Your task to perform on an android device: turn off location history Image 0: 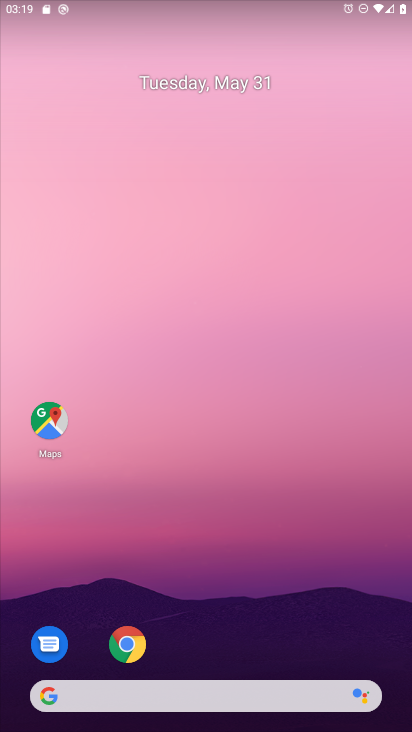
Step 0: drag from (260, 573) to (246, 183)
Your task to perform on an android device: turn off location history Image 1: 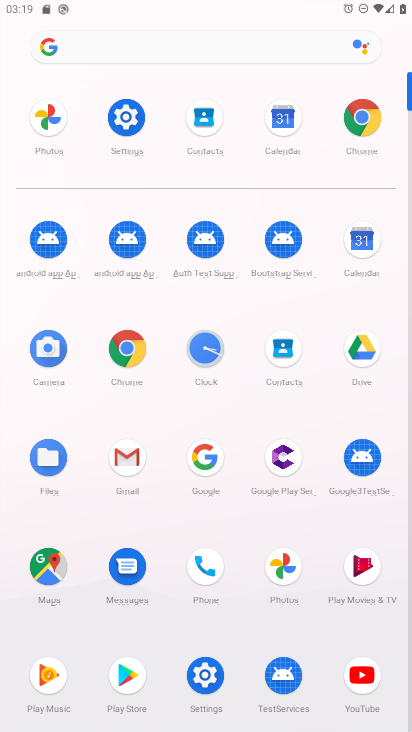
Step 1: click (134, 123)
Your task to perform on an android device: turn off location history Image 2: 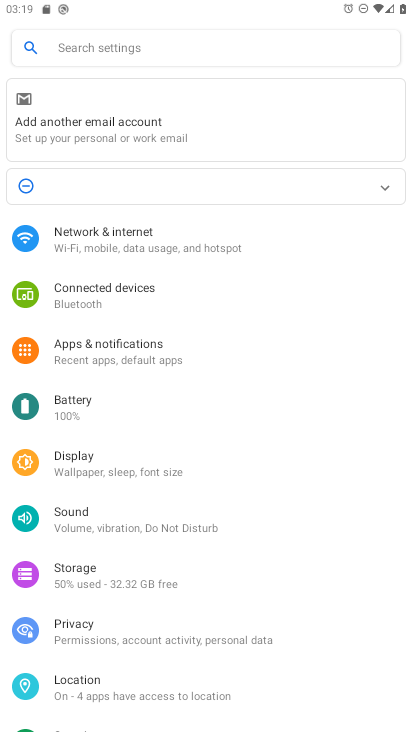
Step 2: drag from (219, 541) to (263, 212)
Your task to perform on an android device: turn off location history Image 3: 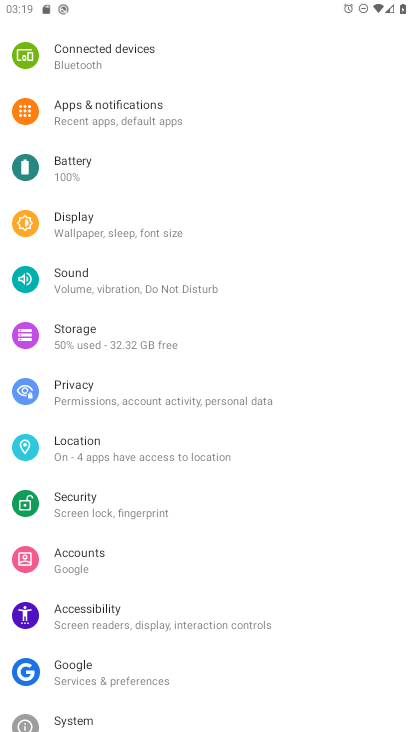
Step 3: click (101, 445)
Your task to perform on an android device: turn off location history Image 4: 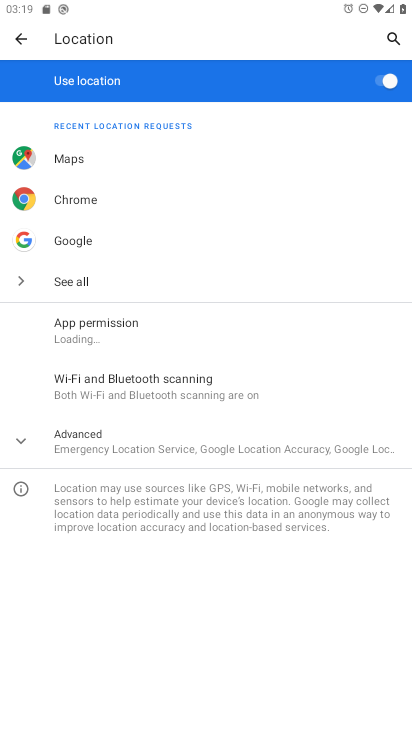
Step 4: click (134, 458)
Your task to perform on an android device: turn off location history Image 5: 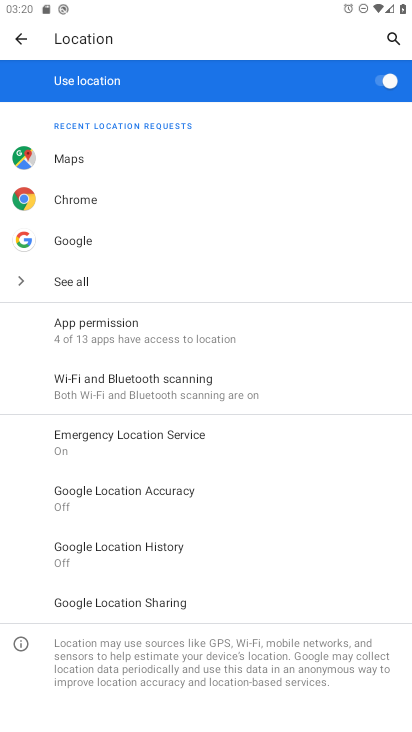
Step 5: click (150, 549)
Your task to perform on an android device: turn off location history Image 6: 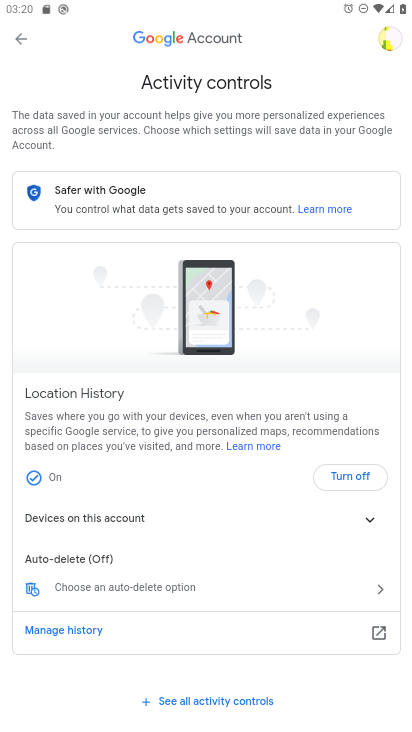
Step 6: click (361, 477)
Your task to perform on an android device: turn off location history Image 7: 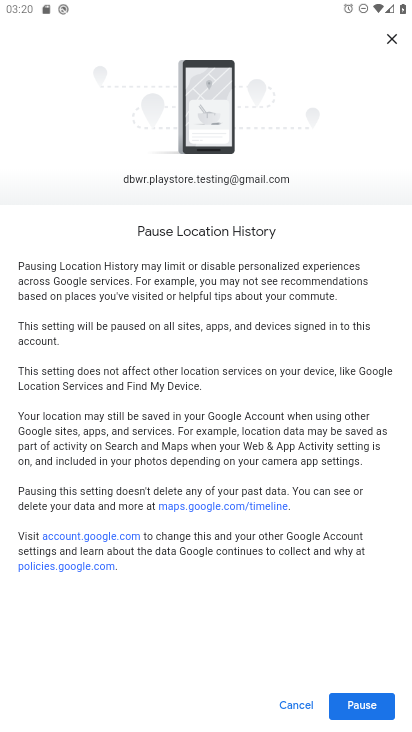
Step 7: click (364, 699)
Your task to perform on an android device: turn off location history Image 8: 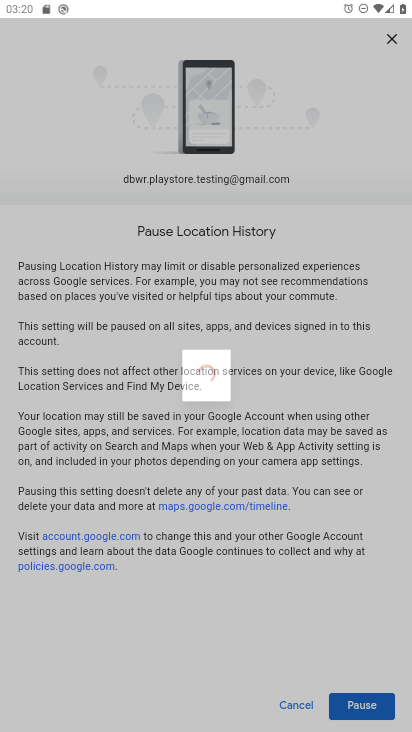
Step 8: click (366, 708)
Your task to perform on an android device: turn off location history Image 9: 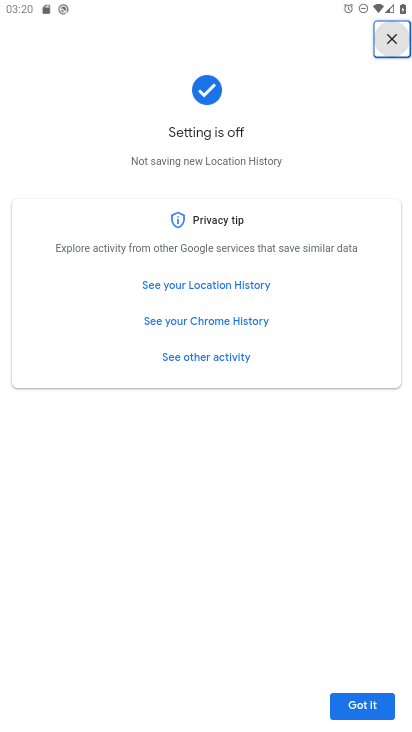
Step 9: task complete